Your task to perform on an android device: toggle airplane mode Image 0: 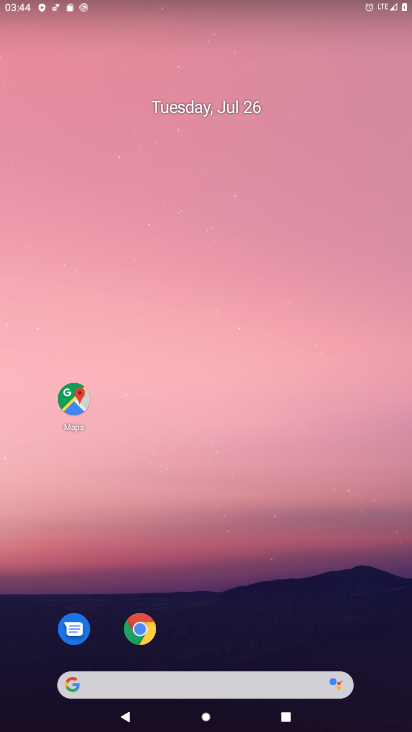
Step 0: drag from (250, 71) to (233, 372)
Your task to perform on an android device: toggle airplane mode Image 1: 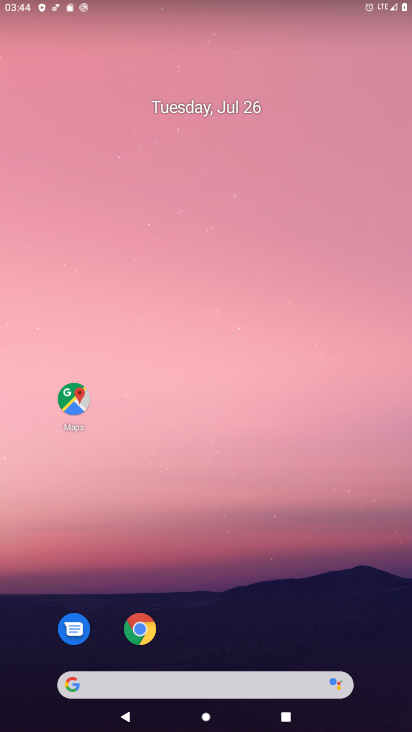
Step 1: drag from (248, 6) to (239, 502)
Your task to perform on an android device: toggle airplane mode Image 2: 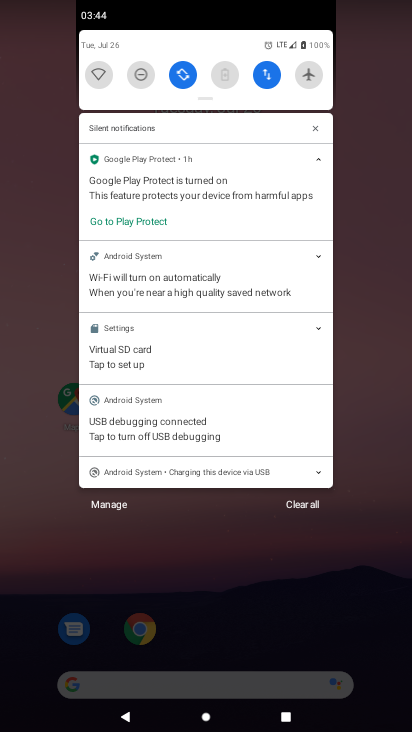
Step 2: click (311, 70)
Your task to perform on an android device: toggle airplane mode Image 3: 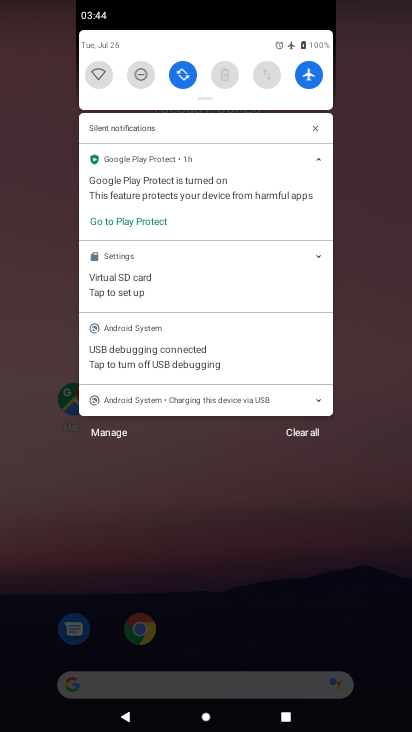
Step 3: task complete